Your task to perform on an android device: Open settings Image 0: 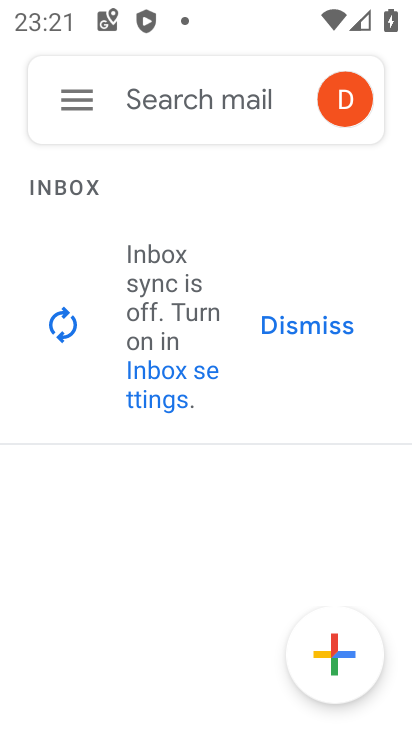
Step 0: press home button
Your task to perform on an android device: Open settings Image 1: 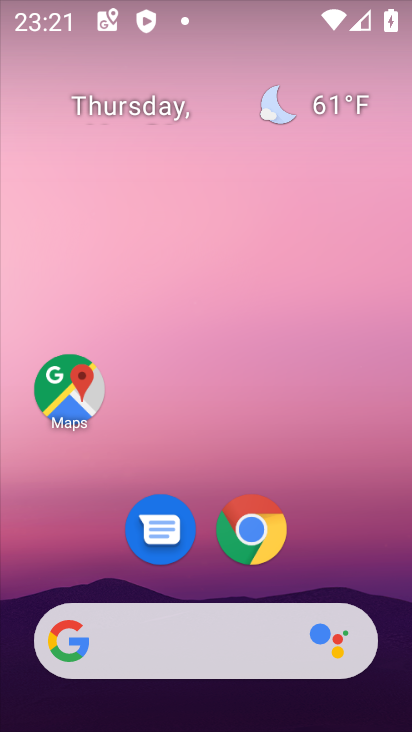
Step 1: drag from (339, 546) to (340, 29)
Your task to perform on an android device: Open settings Image 2: 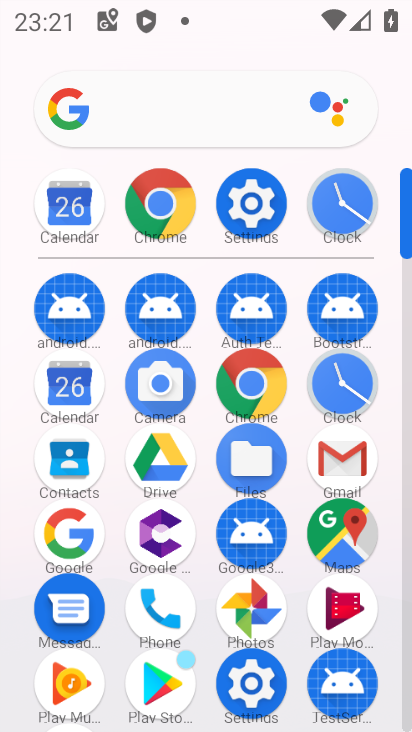
Step 2: click (231, 194)
Your task to perform on an android device: Open settings Image 3: 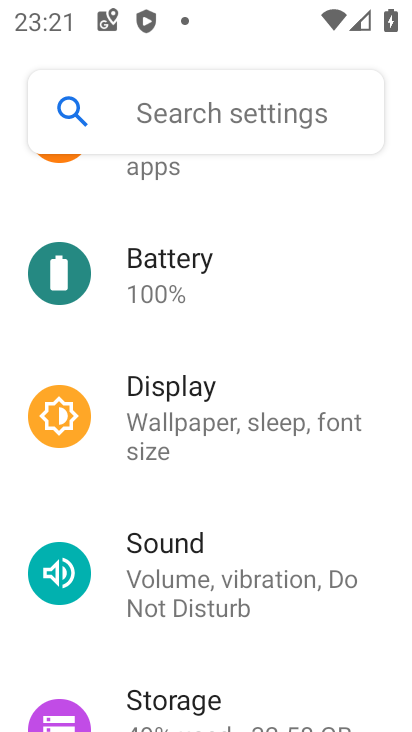
Step 3: task complete